Your task to perform on an android device: turn off translation in the chrome app Image 0: 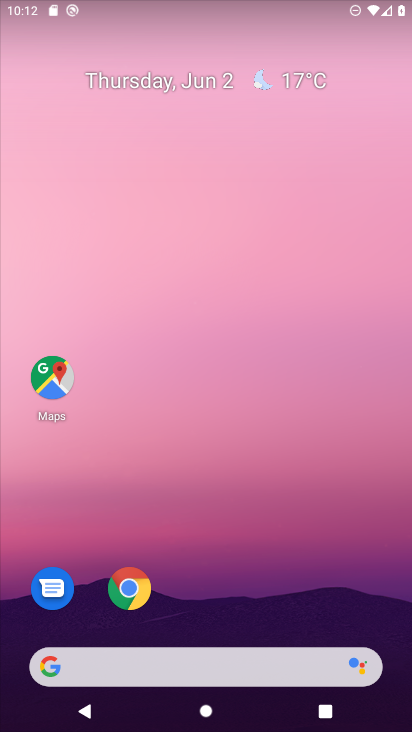
Step 0: drag from (214, 631) to (244, 443)
Your task to perform on an android device: turn off translation in the chrome app Image 1: 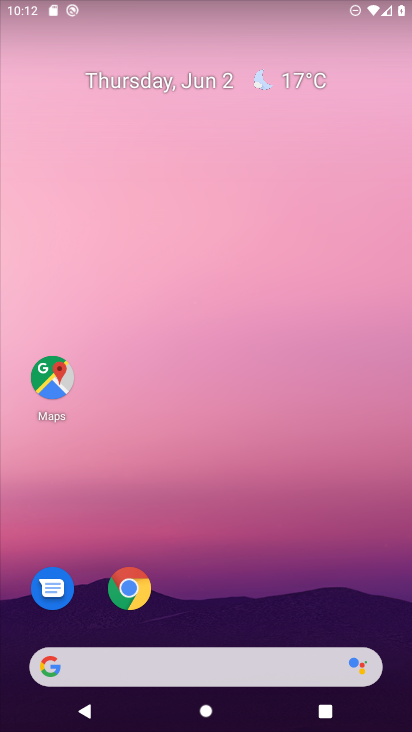
Step 1: drag from (252, 547) to (254, 478)
Your task to perform on an android device: turn off translation in the chrome app Image 2: 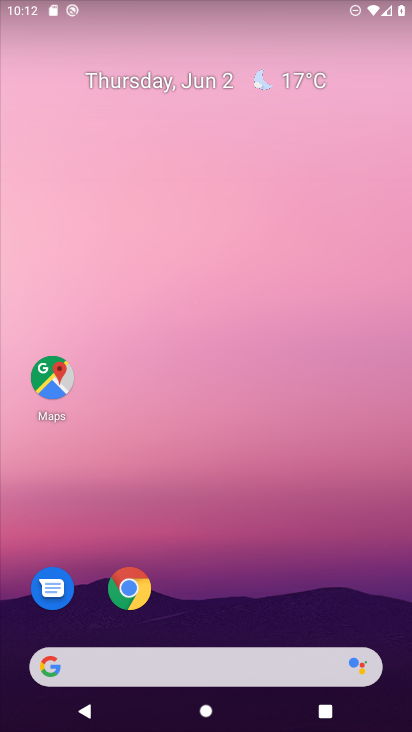
Step 2: click (144, 583)
Your task to perform on an android device: turn off translation in the chrome app Image 3: 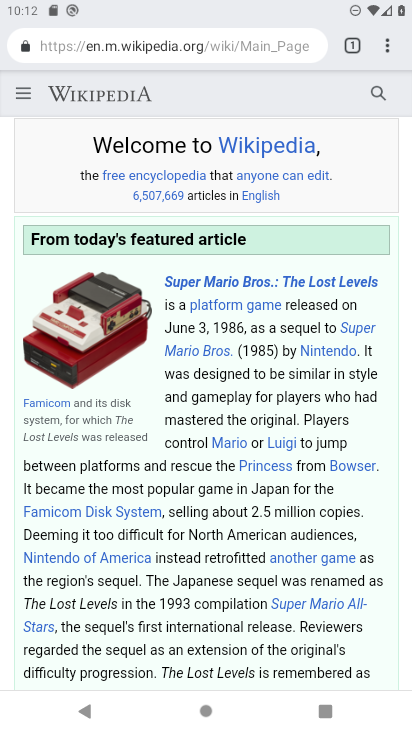
Step 3: click (394, 49)
Your task to perform on an android device: turn off translation in the chrome app Image 4: 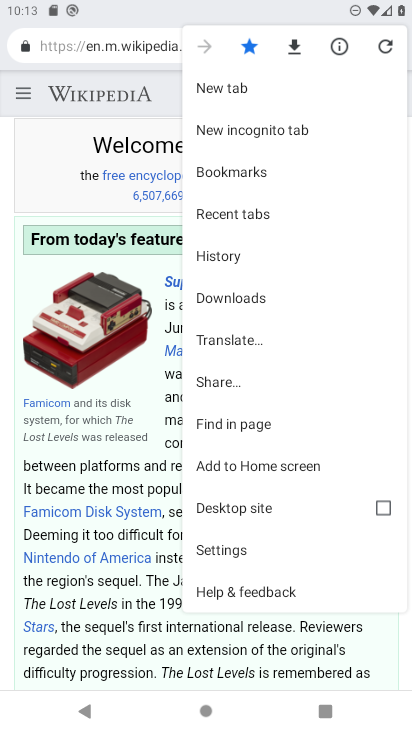
Step 4: click (221, 547)
Your task to perform on an android device: turn off translation in the chrome app Image 5: 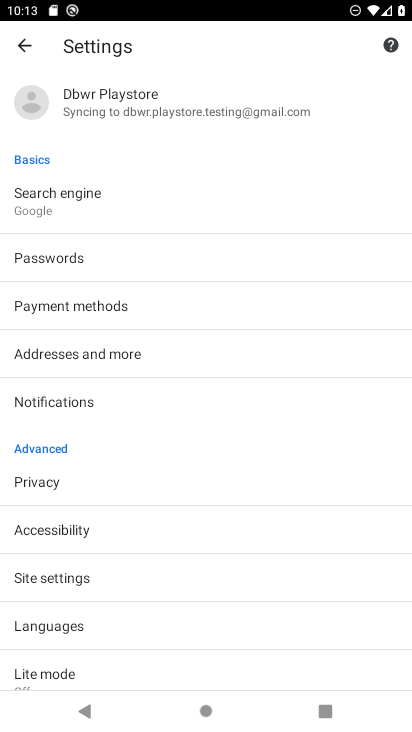
Step 5: click (25, 47)
Your task to perform on an android device: turn off translation in the chrome app Image 6: 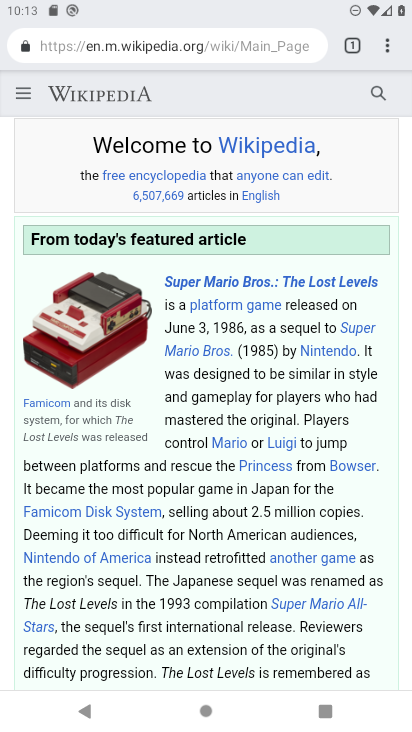
Step 6: click (393, 44)
Your task to perform on an android device: turn off translation in the chrome app Image 7: 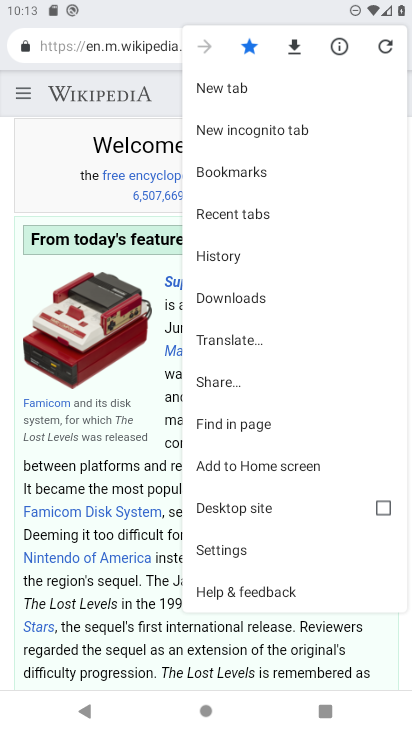
Step 7: click (240, 342)
Your task to perform on an android device: turn off translation in the chrome app Image 8: 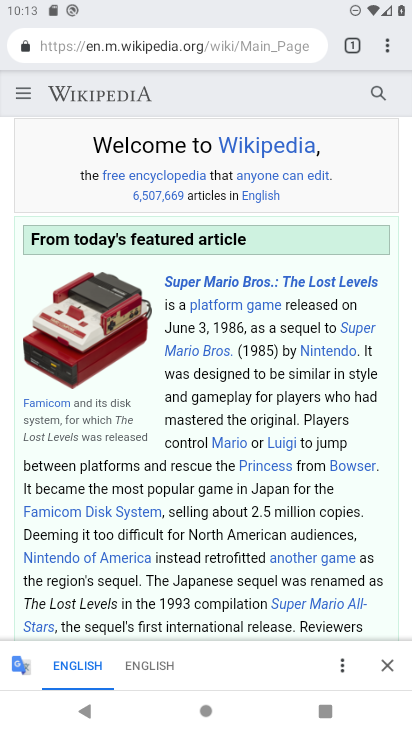
Step 8: click (339, 669)
Your task to perform on an android device: turn off translation in the chrome app Image 9: 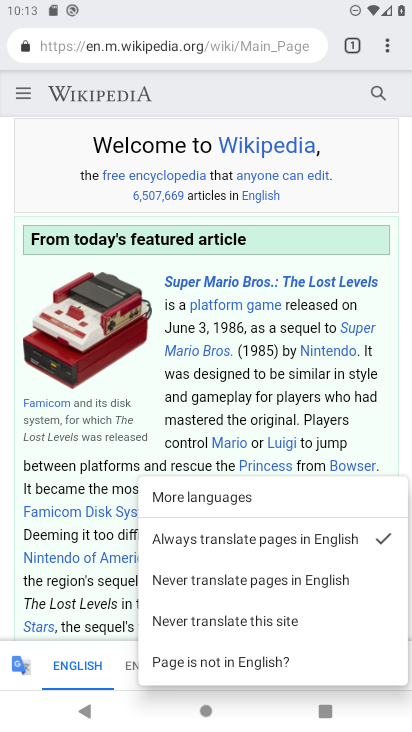
Step 9: click (300, 612)
Your task to perform on an android device: turn off translation in the chrome app Image 10: 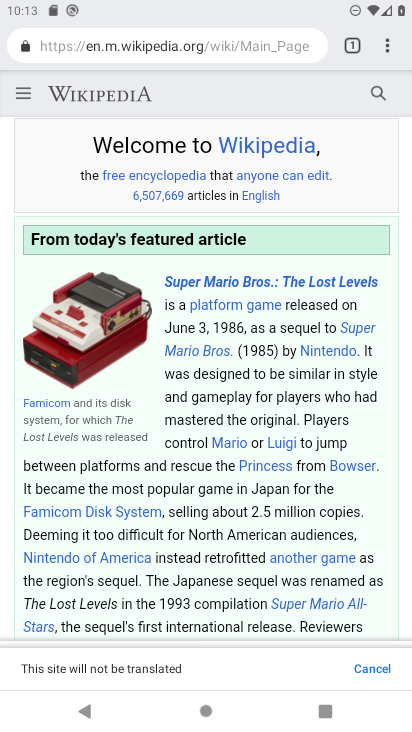
Step 10: task complete